Your task to perform on an android device: Go to network settings Image 0: 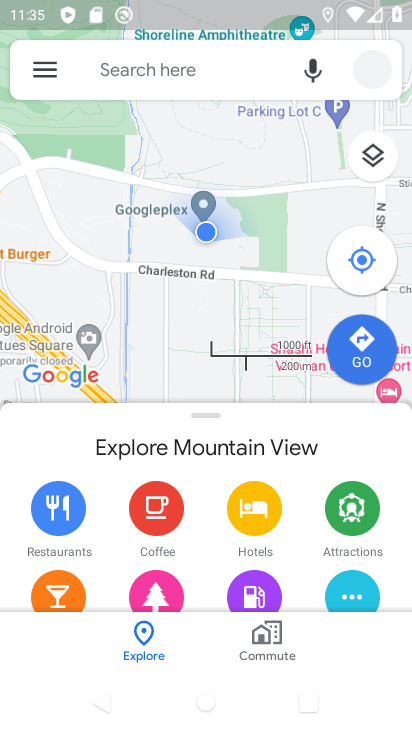
Step 0: press back button
Your task to perform on an android device: Go to network settings Image 1: 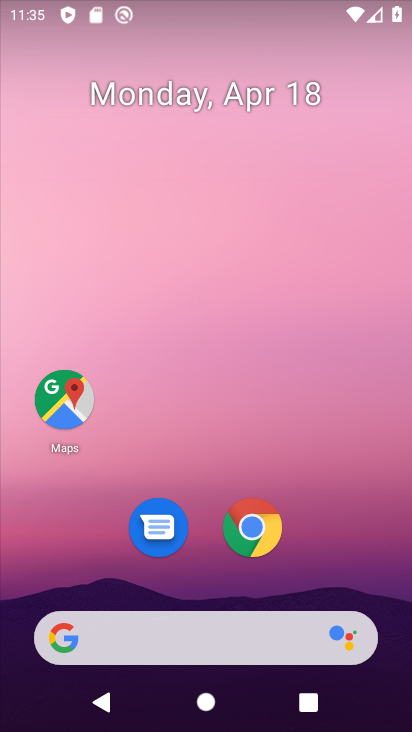
Step 1: drag from (319, 559) to (398, 20)
Your task to perform on an android device: Go to network settings Image 2: 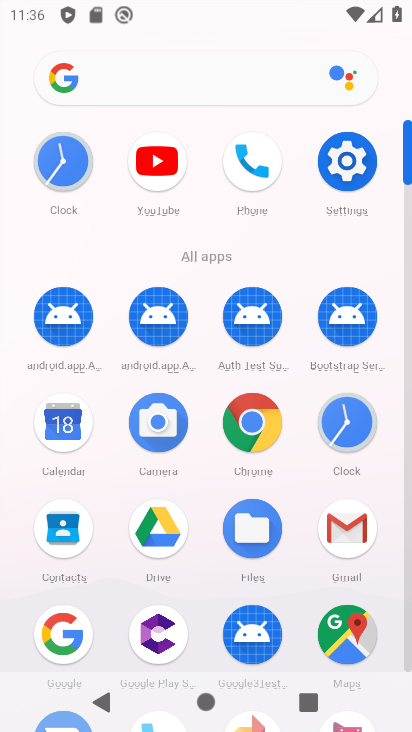
Step 2: click (347, 156)
Your task to perform on an android device: Go to network settings Image 3: 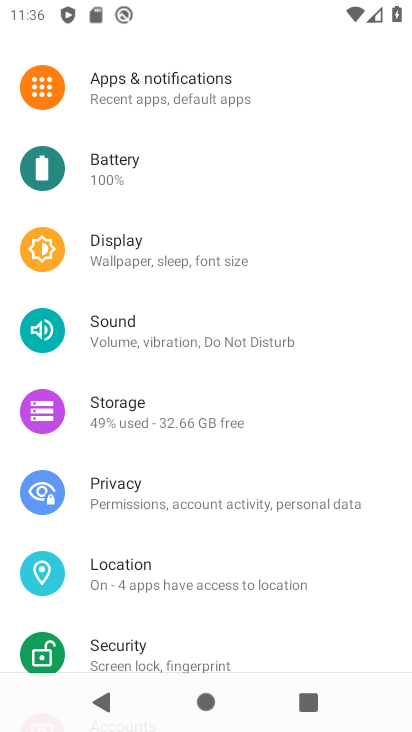
Step 3: drag from (203, 300) to (243, 453)
Your task to perform on an android device: Go to network settings Image 4: 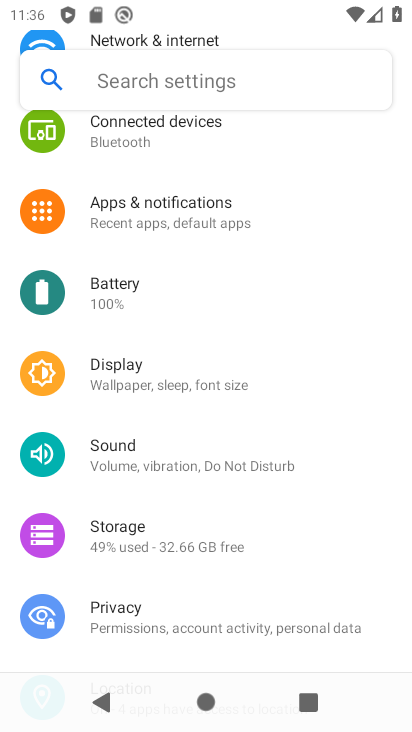
Step 4: drag from (217, 358) to (232, 476)
Your task to perform on an android device: Go to network settings Image 5: 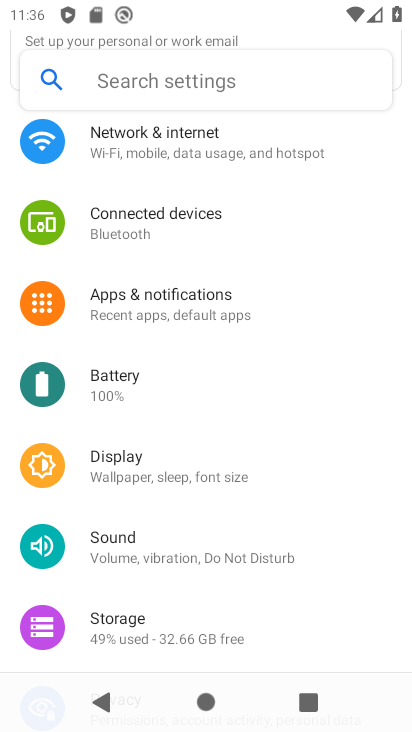
Step 5: drag from (283, 364) to (338, 523)
Your task to perform on an android device: Go to network settings Image 6: 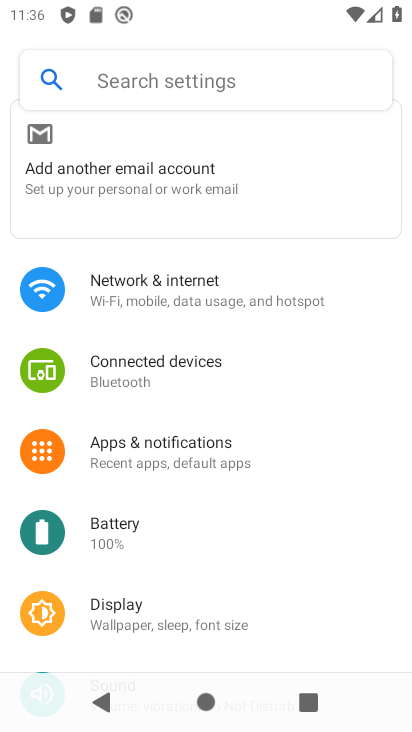
Step 6: click (196, 284)
Your task to perform on an android device: Go to network settings Image 7: 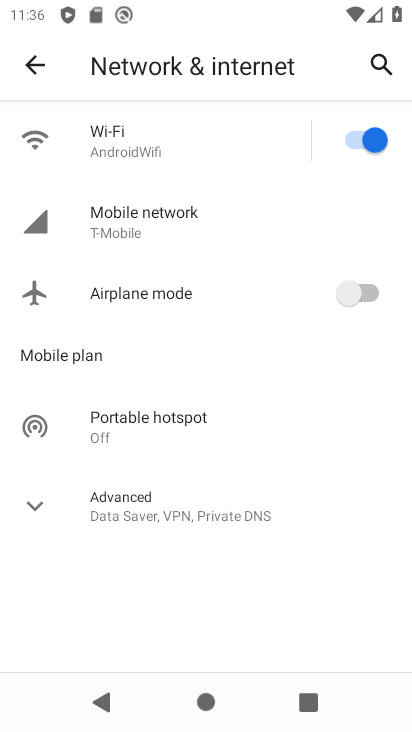
Step 7: click (211, 230)
Your task to perform on an android device: Go to network settings Image 8: 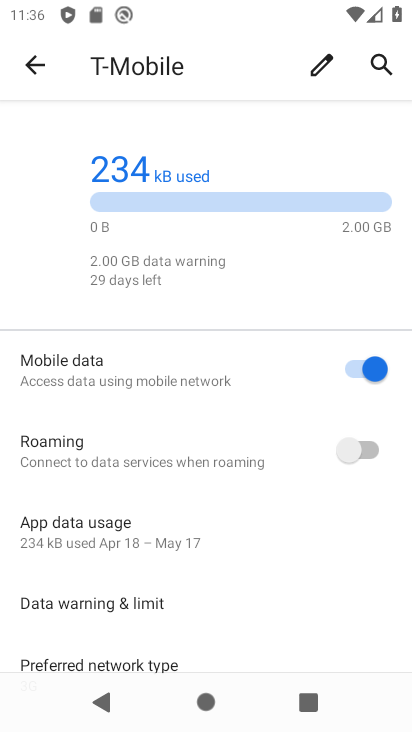
Step 8: task complete